Your task to perform on an android device: Open Google Maps and go to "Timeline" Image 0: 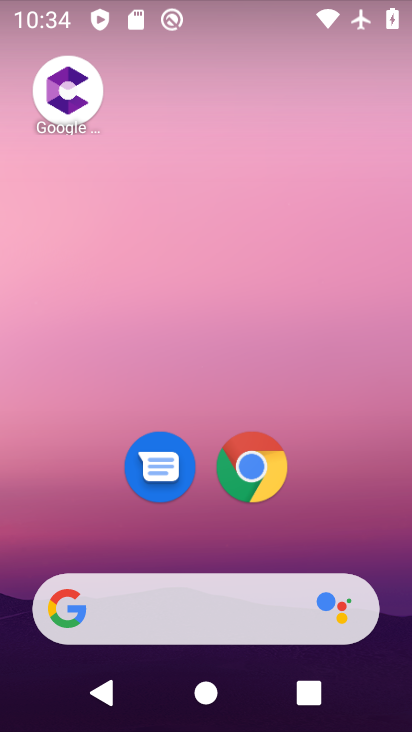
Step 0: drag from (200, 492) to (295, 10)
Your task to perform on an android device: Open Google Maps and go to "Timeline" Image 1: 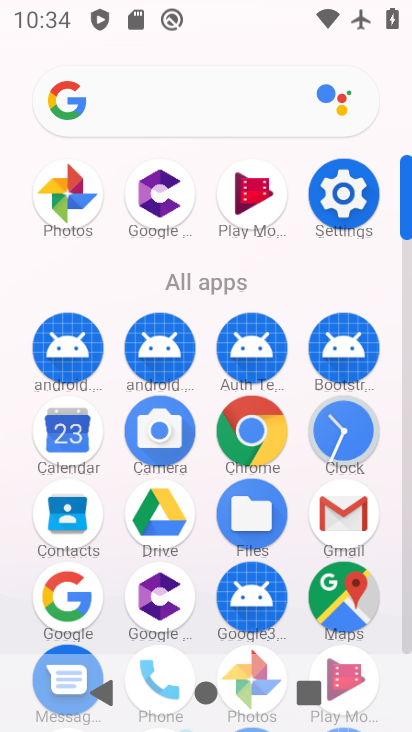
Step 1: click (360, 584)
Your task to perform on an android device: Open Google Maps and go to "Timeline" Image 2: 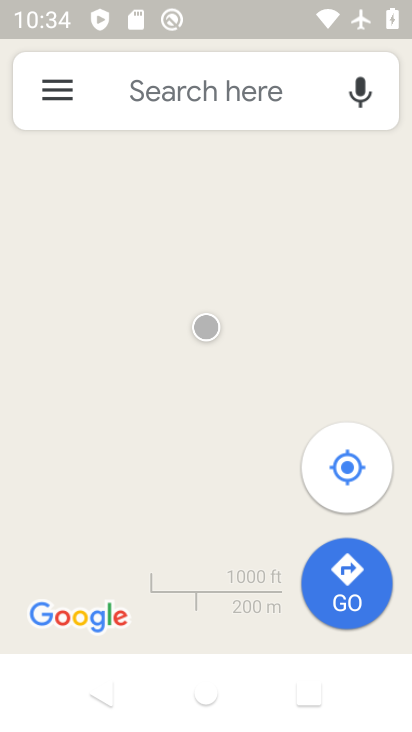
Step 2: click (44, 86)
Your task to perform on an android device: Open Google Maps and go to "Timeline" Image 3: 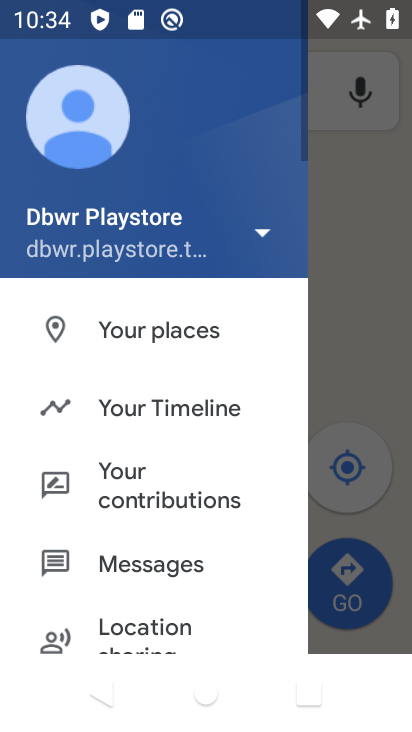
Step 3: click (161, 393)
Your task to perform on an android device: Open Google Maps and go to "Timeline" Image 4: 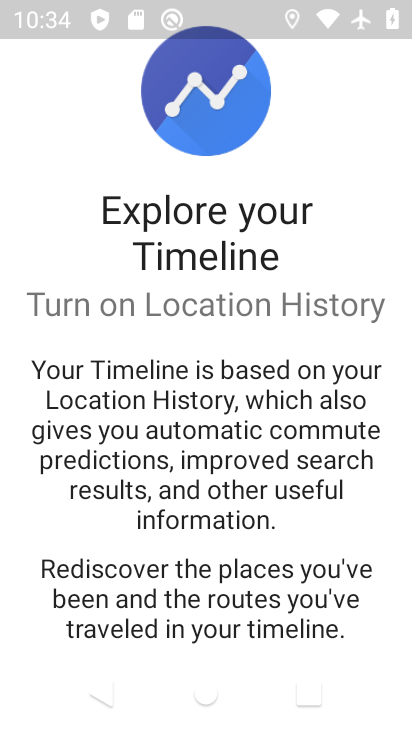
Step 4: drag from (227, 658) to (236, 210)
Your task to perform on an android device: Open Google Maps and go to "Timeline" Image 5: 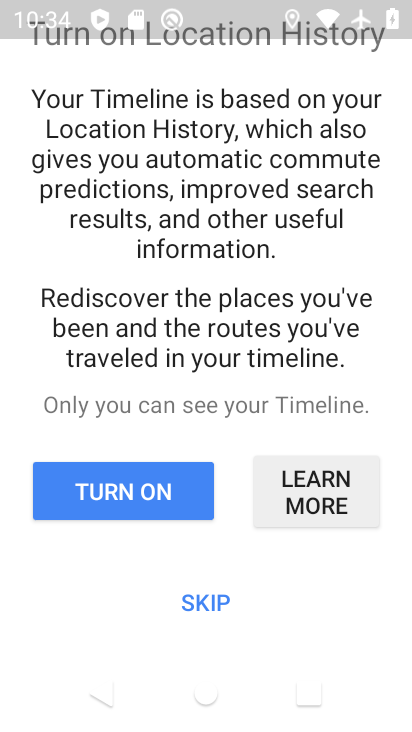
Step 5: click (195, 603)
Your task to perform on an android device: Open Google Maps and go to "Timeline" Image 6: 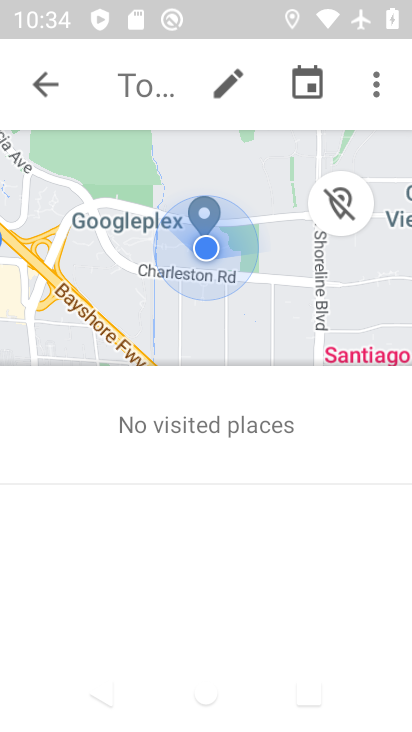
Step 6: task complete